Your task to perform on an android device: turn on sleep mode Image 0: 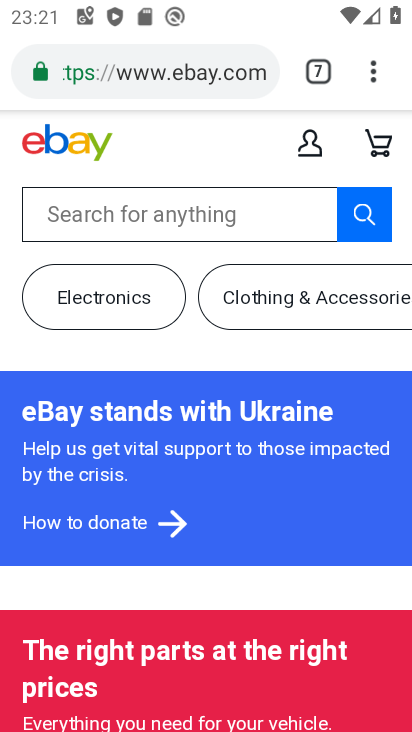
Step 0: press home button
Your task to perform on an android device: turn on sleep mode Image 1: 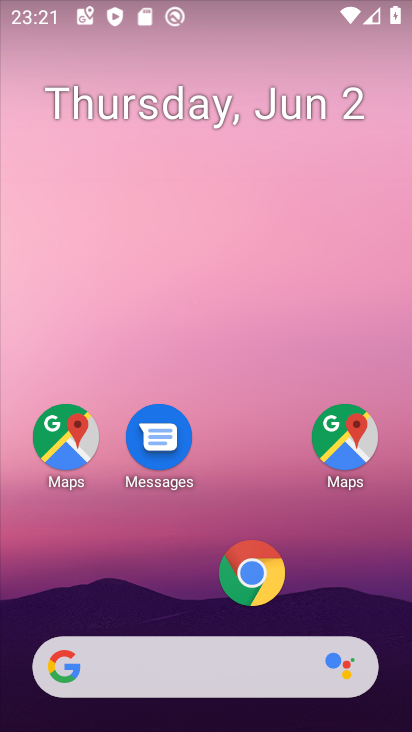
Step 1: drag from (203, 543) to (70, 185)
Your task to perform on an android device: turn on sleep mode Image 2: 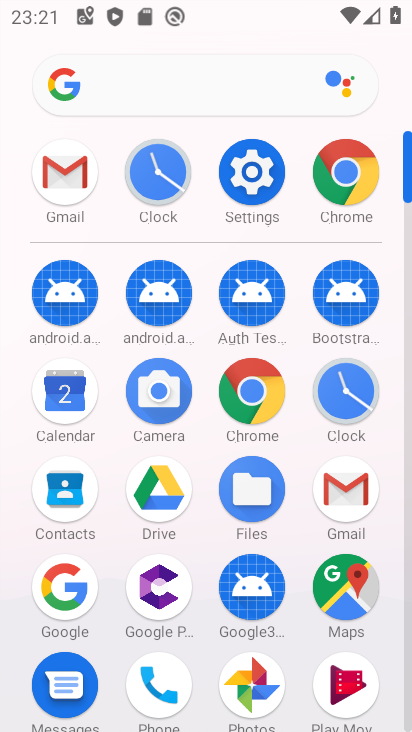
Step 2: click (238, 179)
Your task to perform on an android device: turn on sleep mode Image 3: 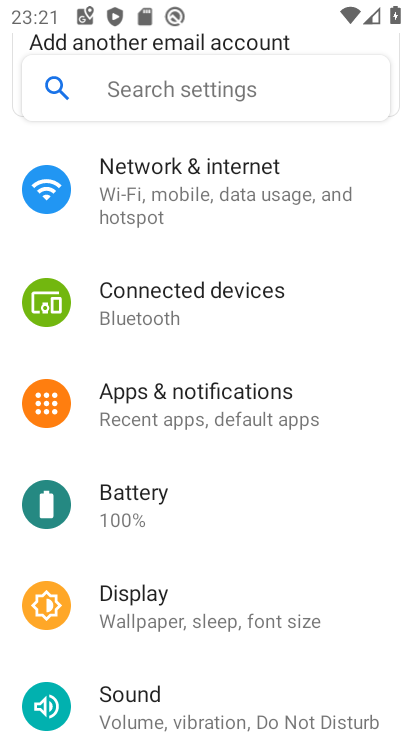
Step 3: click (197, 621)
Your task to perform on an android device: turn on sleep mode Image 4: 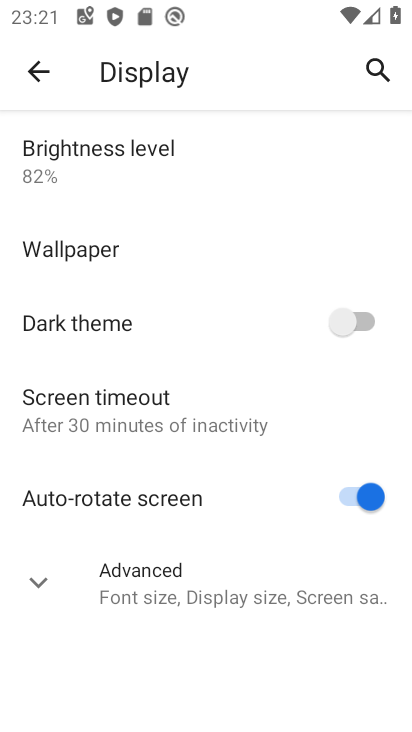
Step 4: click (161, 616)
Your task to perform on an android device: turn on sleep mode Image 5: 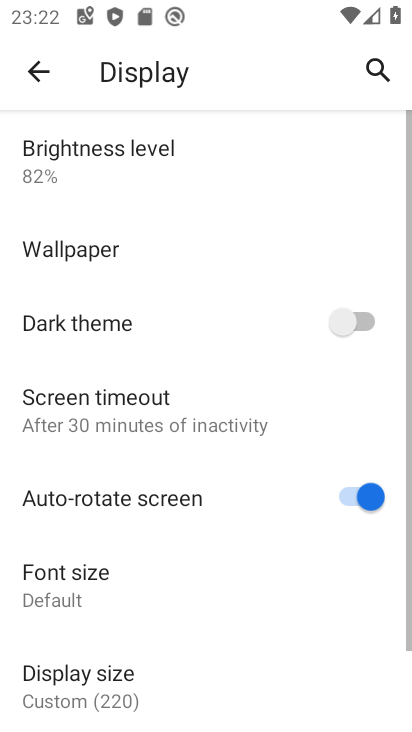
Step 5: task complete